Your task to perform on an android device: star an email in the gmail app Image 0: 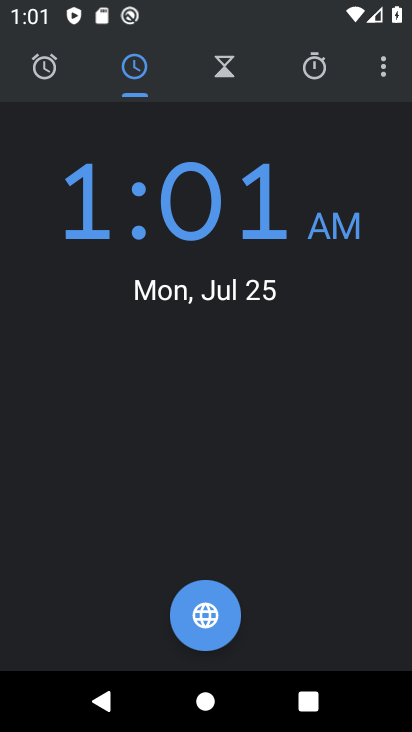
Step 0: press home button
Your task to perform on an android device: star an email in the gmail app Image 1: 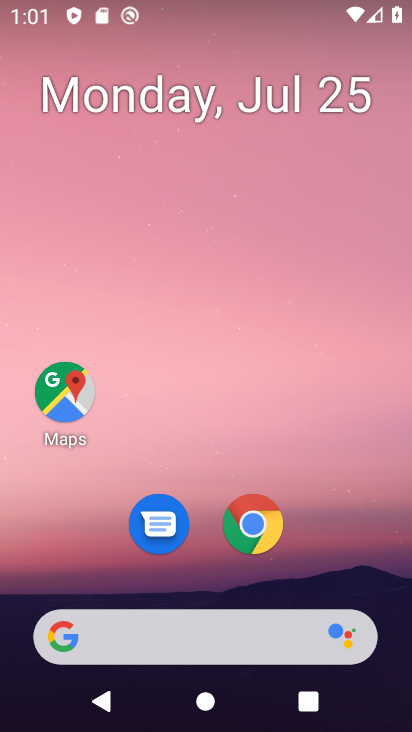
Step 1: drag from (192, 630) to (310, 112)
Your task to perform on an android device: star an email in the gmail app Image 2: 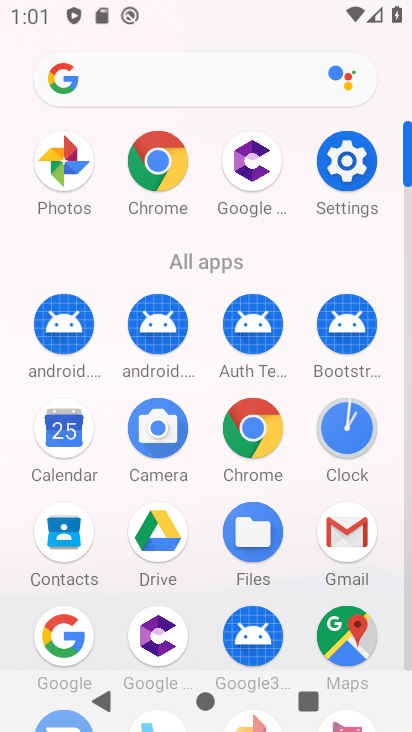
Step 2: click (351, 532)
Your task to perform on an android device: star an email in the gmail app Image 3: 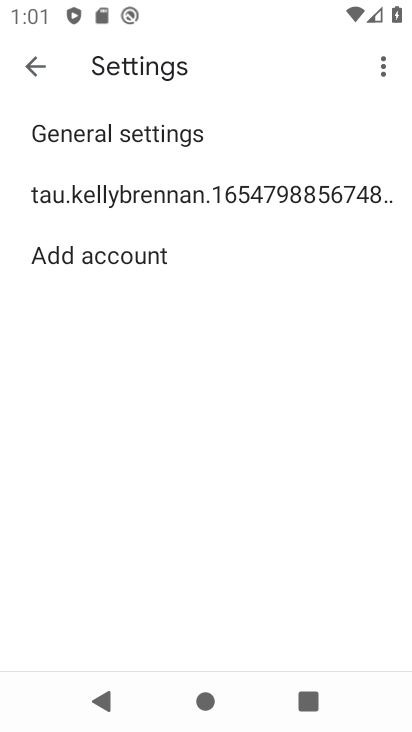
Step 3: click (34, 64)
Your task to perform on an android device: star an email in the gmail app Image 4: 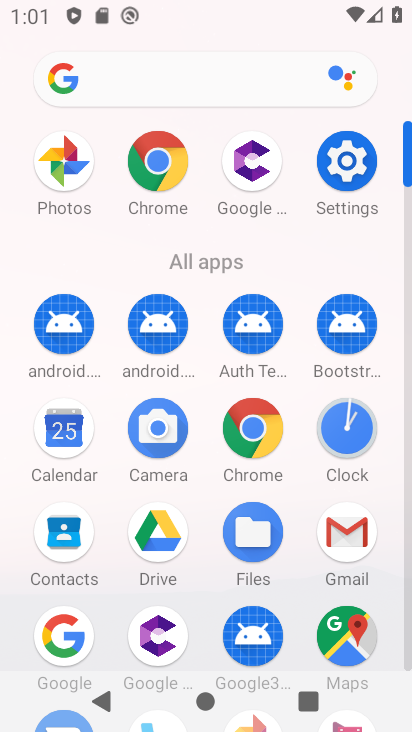
Step 4: click (342, 542)
Your task to perform on an android device: star an email in the gmail app Image 5: 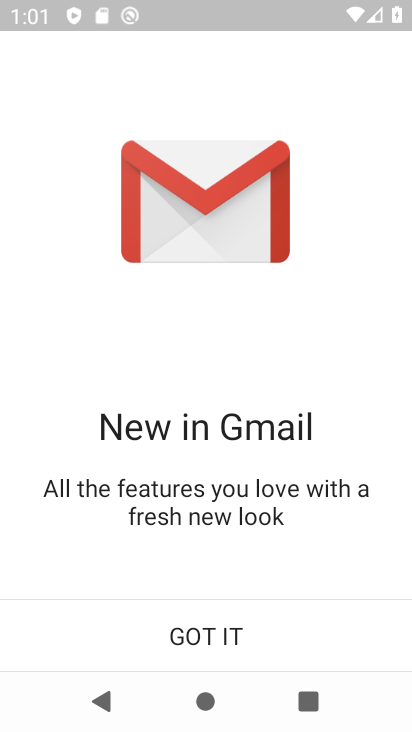
Step 5: click (222, 636)
Your task to perform on an android device: star an email in the gmail app Image 6: 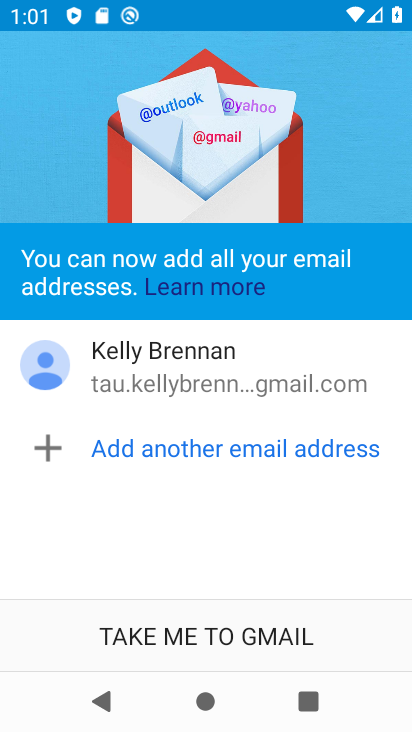
Step 6: click (222, 636)
Your task to perform on an android device: star an email in the gmail app Image 7: 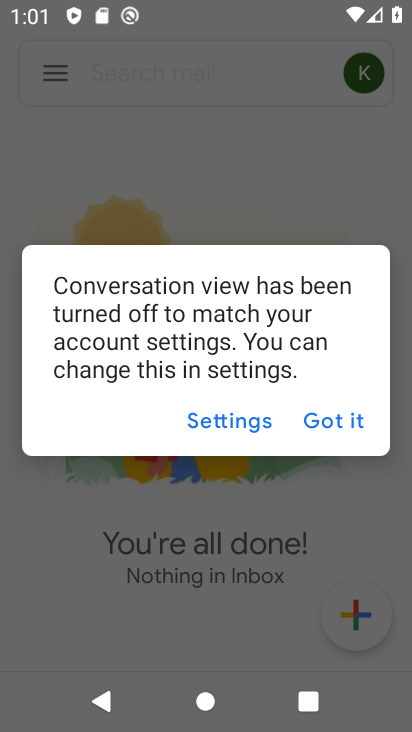
Step 7: click (337, 423)
Your task to perform on an android device: star an email in the gmail app Image 8: 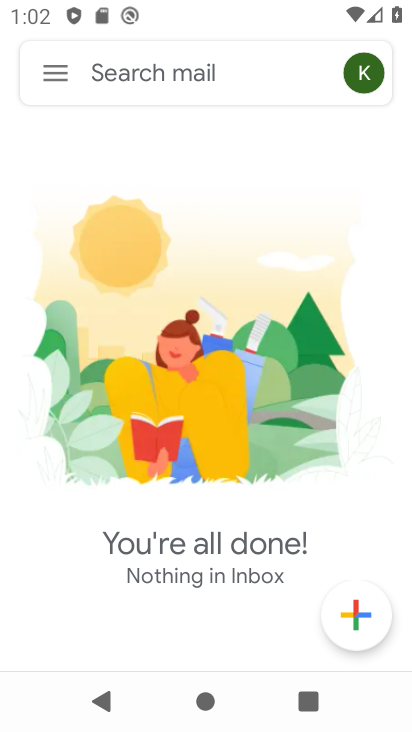
Step 8: task complete